Your task to perform on an android device: turn off smart reply in the gmail app Image 0: 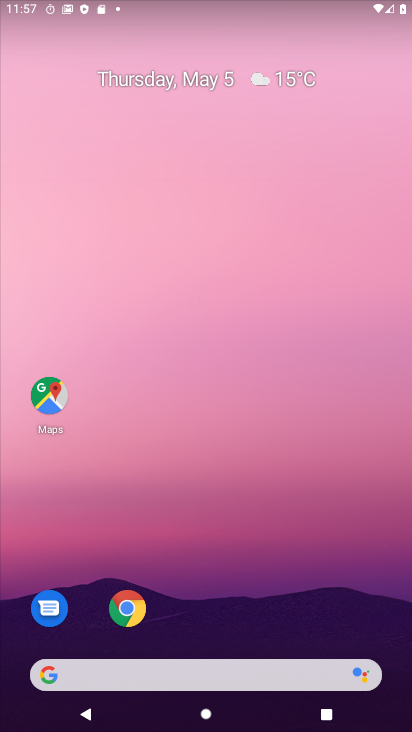
Step 0: drag from (234, 580) to (182, 145)
Your task to perform on an android device: turn off smart reply in the gmail app Image 1: 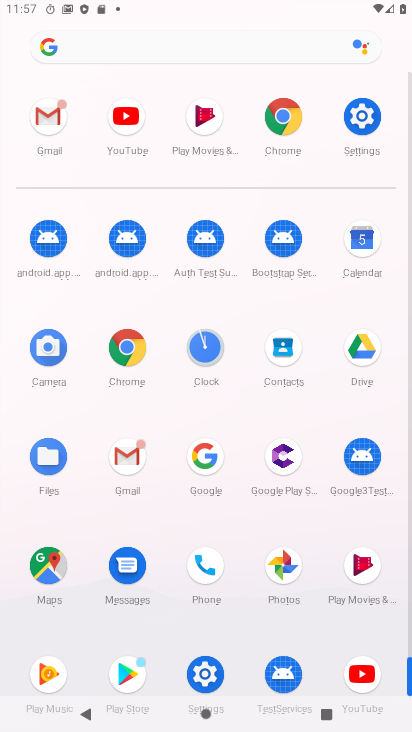
Step 1: click (47, 113)
Your task to perform on an android device: turn off smart reply in the gmail app Image 2: 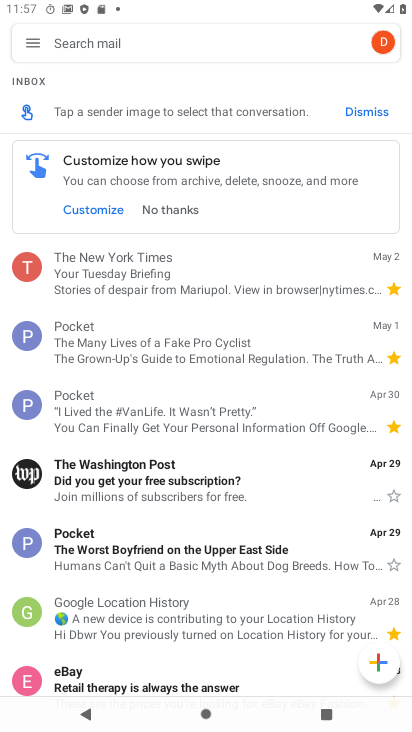
Step 2: click (34, 44)
Your task to perform on an android device: turn off smart reply in the gmail app Image 3: 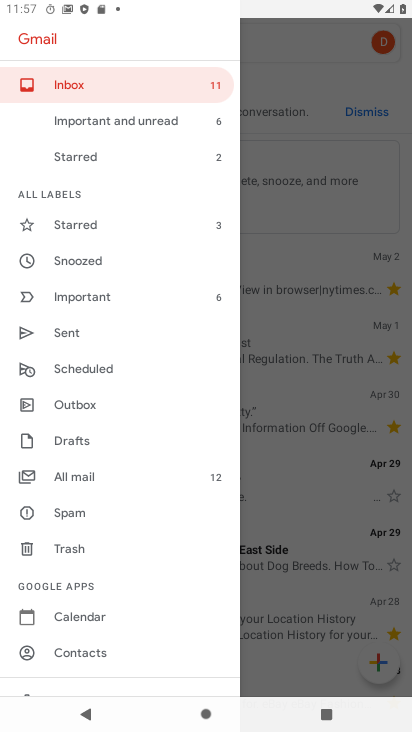
Step 3: drag from (96, 524) to (127, 426)
Your task to perform on an android device: turn off smart reply in the gmail app Image 4: 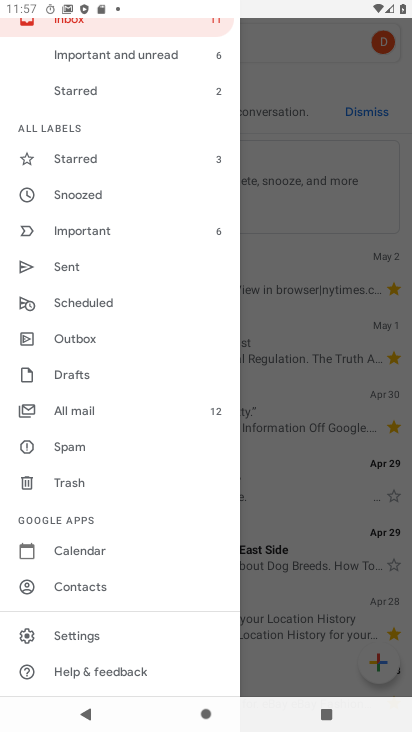
Step 4: click (83, 634)
Your task to perform on an android device: turn off smart reply in the gmail app Image 5: 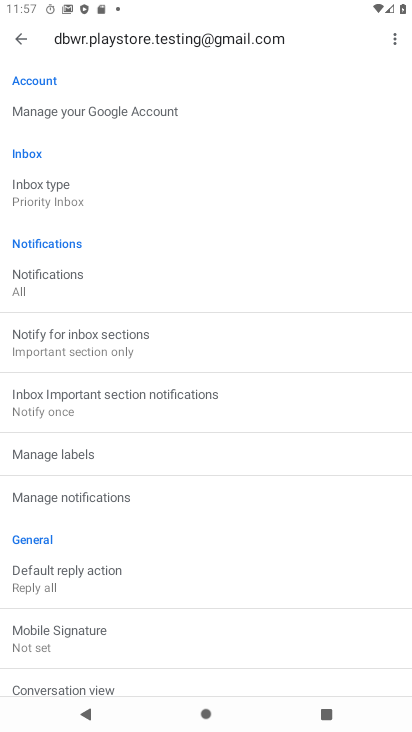
Step 5: drag from (121, 569) to (184, 454)
Your task to perform on an android device: turn off smart reply in the gmail app Image 6: 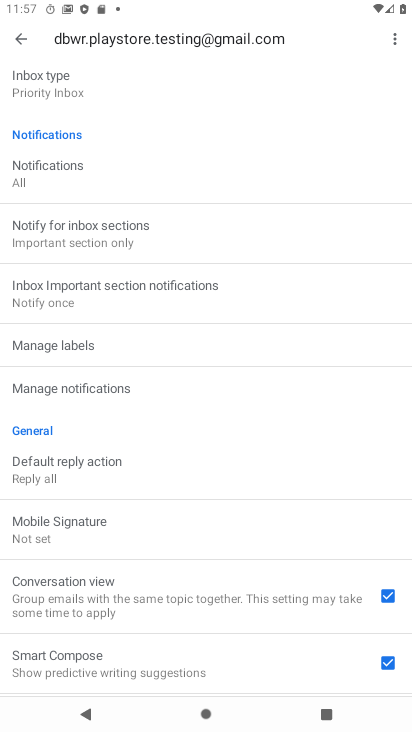
Step 6: drag from (127, 619) to (194, 505)
Your task to perform on an android device: turn off smart reply in the gmail app Image 7: 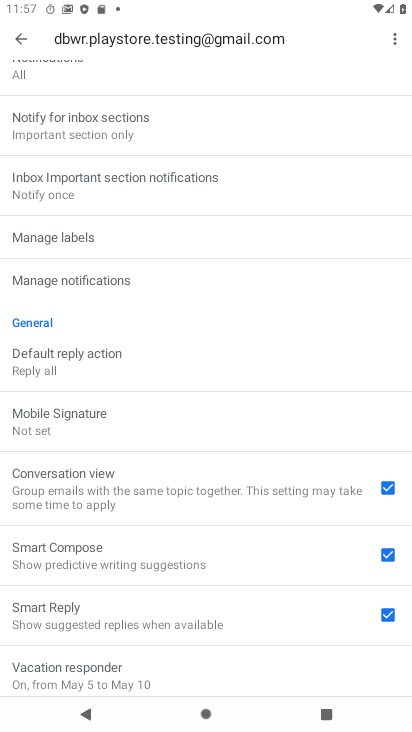
Step 7: click (390, 617)
Your task to perform on an android device: turn off smart reply in the gmail app Image 8: 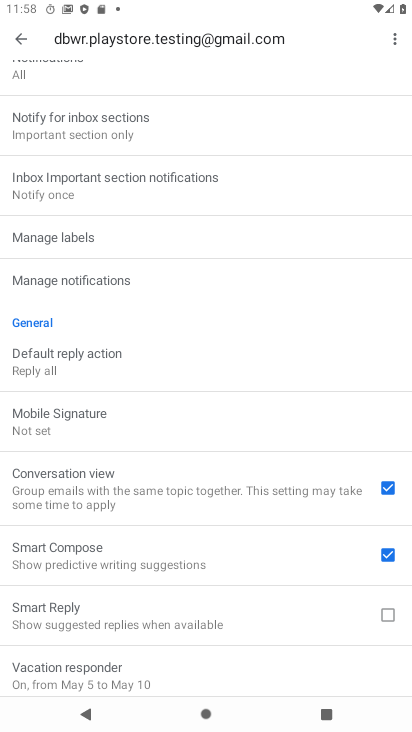
Step 8: task complete